Your task to perform on an android device: clear all cookies in the chrome app Image 0: 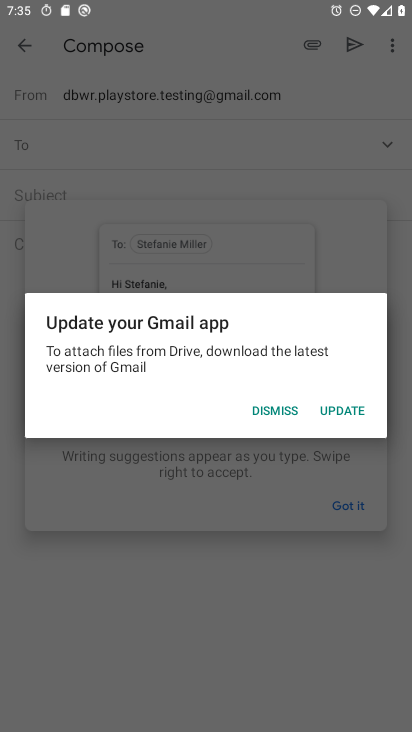
Step 0: press home button
Your task to perform on an android device: clear all cookies in the chrome app Image 1: 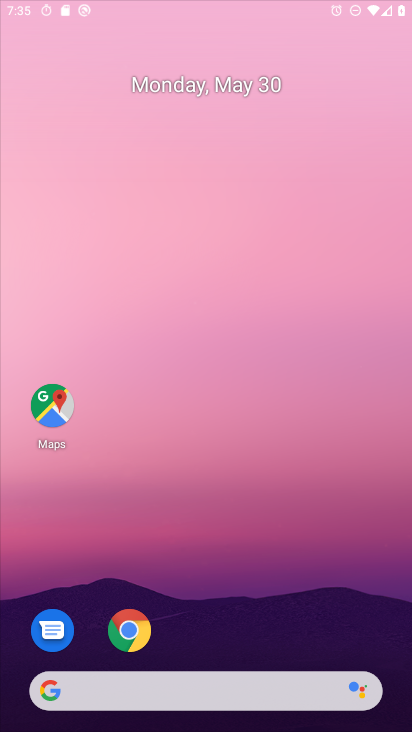
Step 1: drag from (378, 605) to (334, 35)
Your task to perform on an android device: clear all cookies in the chrome app Image 2: 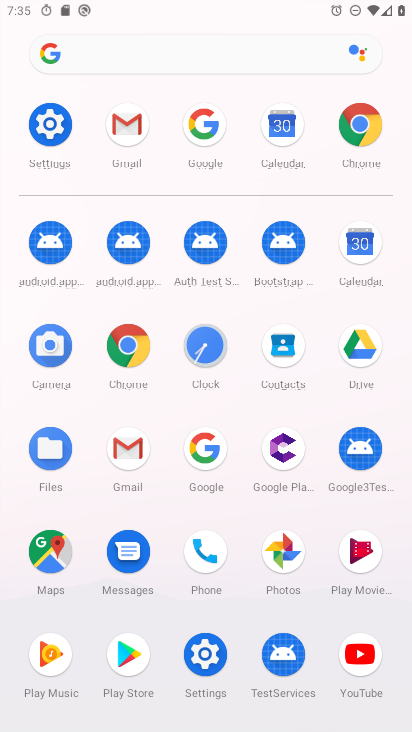
Step 2: click (366, 145)
Your task to perform on an android device: clear all cookies in the chrome app Image 3: 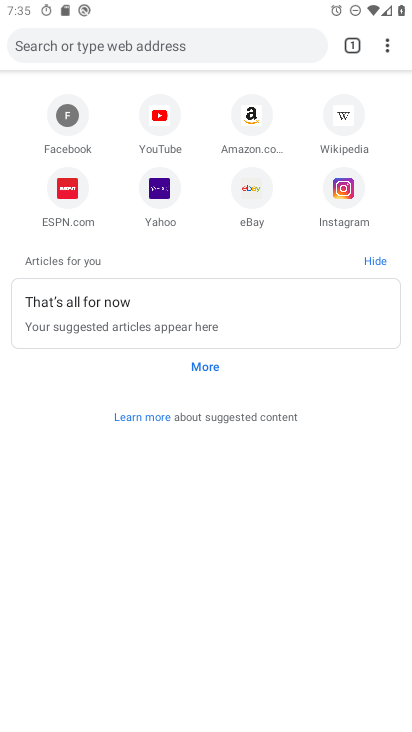
Step 3: click (382, 44)
Your task to perform on an android device: clear all cookies in the chrome app Image 4: 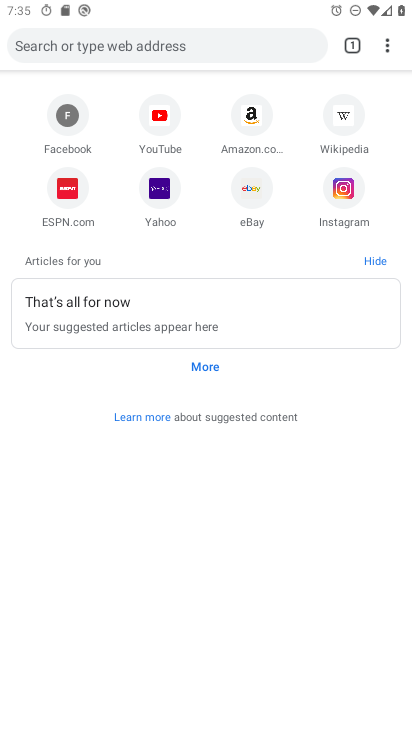
Step 4: click (384, 41)
Your task to perform on an android device: clear all cookies in the chrome app Image 5: 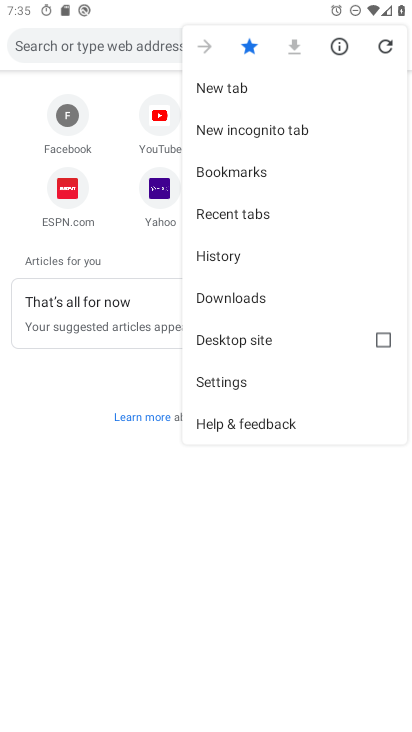
Step 5: click (238, 255)
Your task to perform on an android device: clear all cookies in the chrome app Image 6: 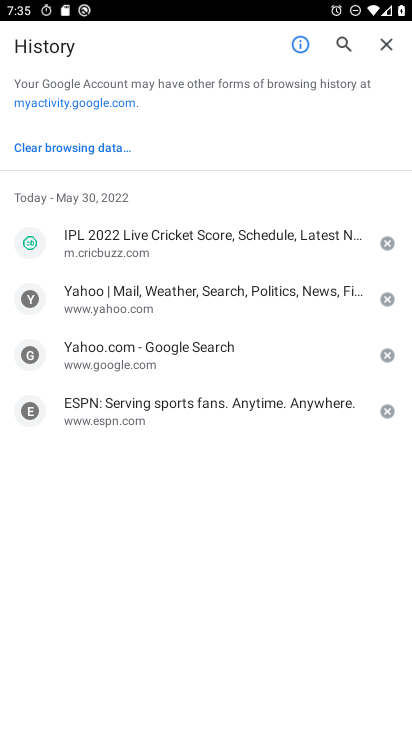
Step 6: click (48, 157)
Your task to perform on an android device: clear all cookies in the chrome app Image 7: 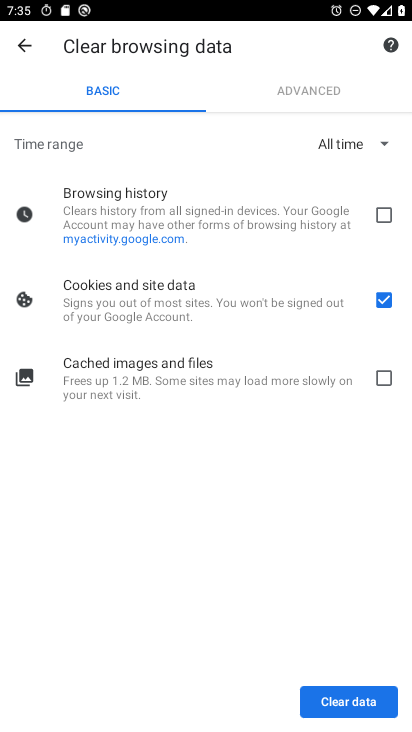
Step 7: click (377, 718)
Your task to perform on an android device: clear all cookies in the chrome app Image 8: 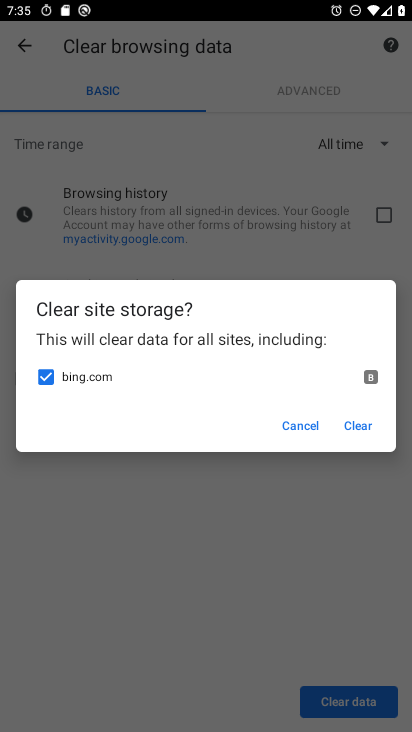
Step 8: click (349, 429)
Your task to perform on an android device: clear all cookies in the chrome app Image 9: 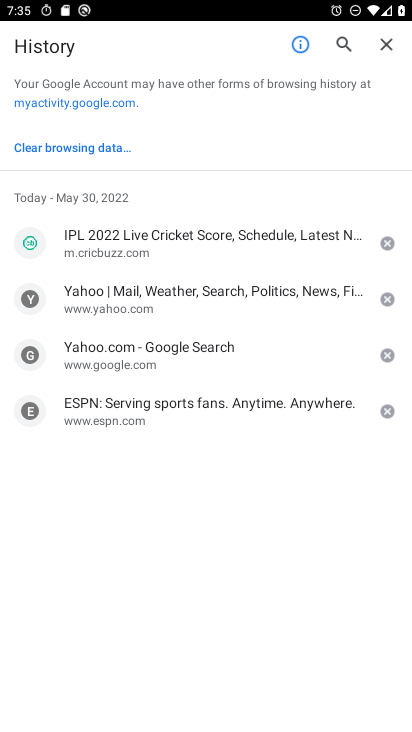
Step 9: click (48, 167)
Your task to perform on an android device: clear all cookies in the chrome app Image 10: 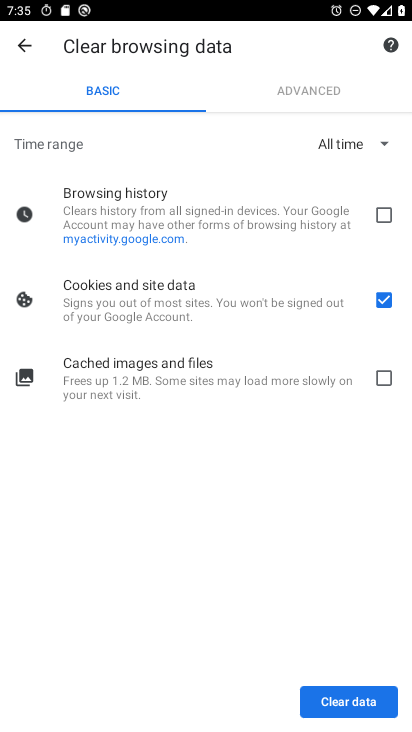
Step 10: click (383, 220)
Your task to perform on an android device: clear all cookies in the chrome app Image 11: 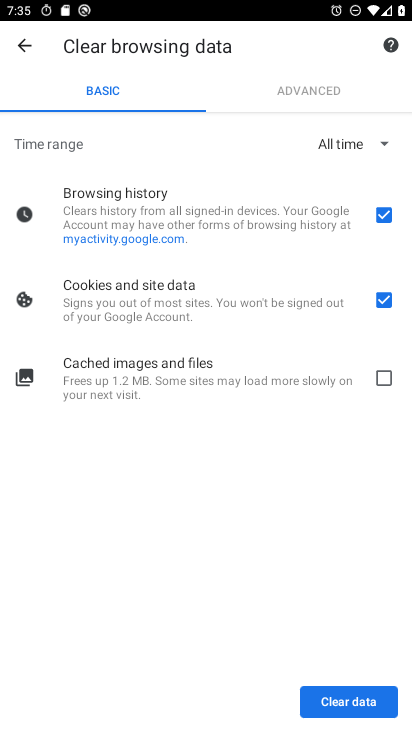
Step 11: click (351, 688)
Your task to perform on an android device: clear all cookies in the chrome app Image 12: 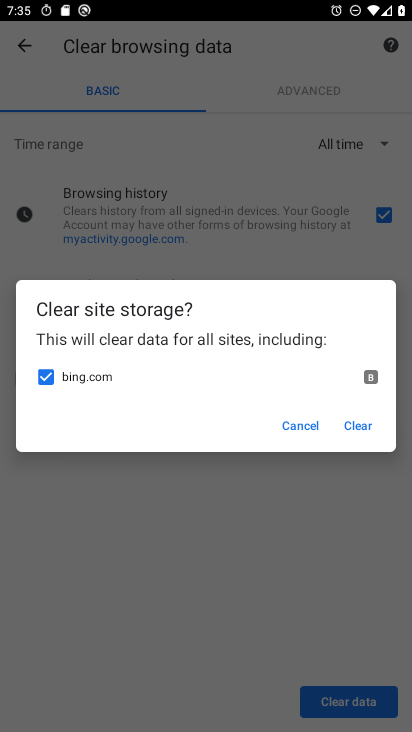
Step 12: click (375, 421)
Your task to perform on an android device: clear all cookies in the chrome app Image 13: 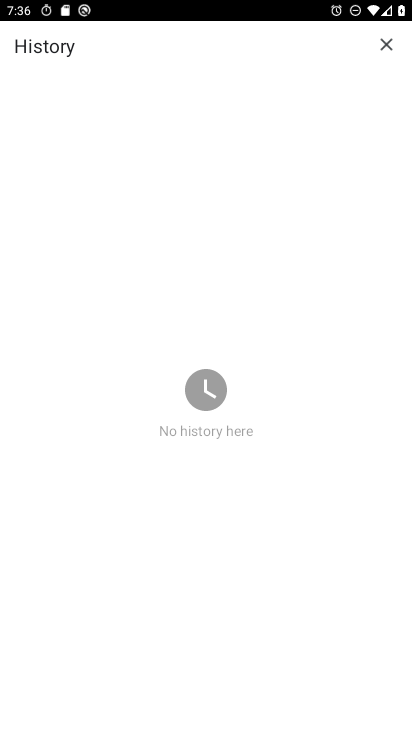
Step 13: task complete